Your task to perform on an android device: Is it going to rain this weekend? Image 0: 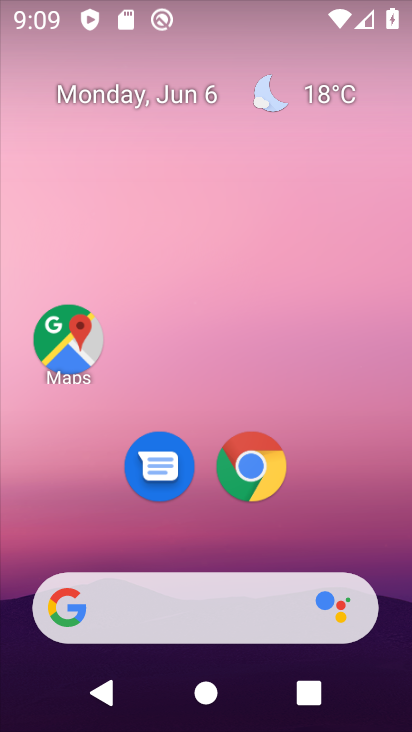
Step 0: click (197, 591)
Your task to perform on an android device: Is it going to rain this weekend? Image 1: 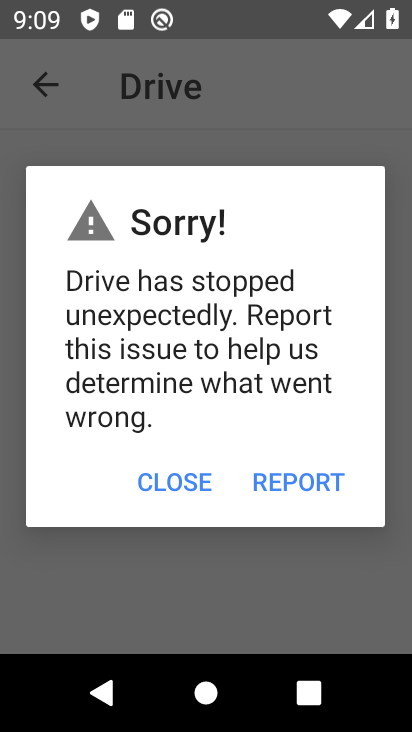
Step 1: click (197, 591)
Your task to perform on an android device: Is it going to rain this weekend? Image 2: 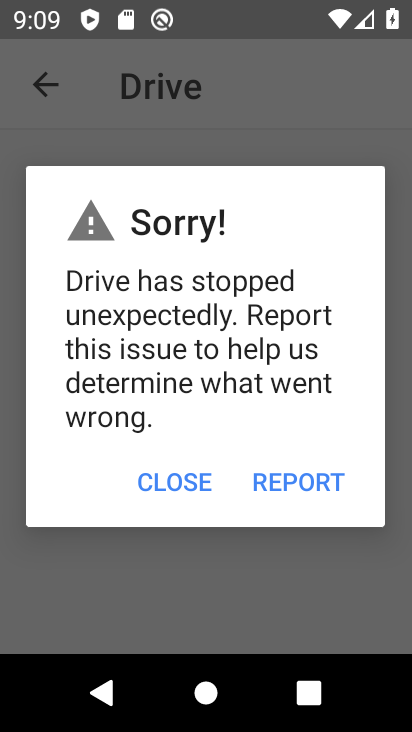
Step 2: click (188, 471)
Your task to perform on an android device: Is it going to rain this weekend? Image 3: 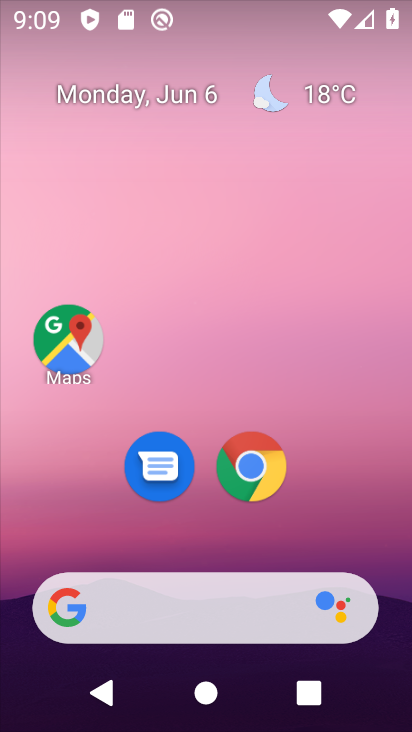
Step 3: click (62, 602)
Your task to perform on an android device: Is it going to rain this weekend? Image 4: 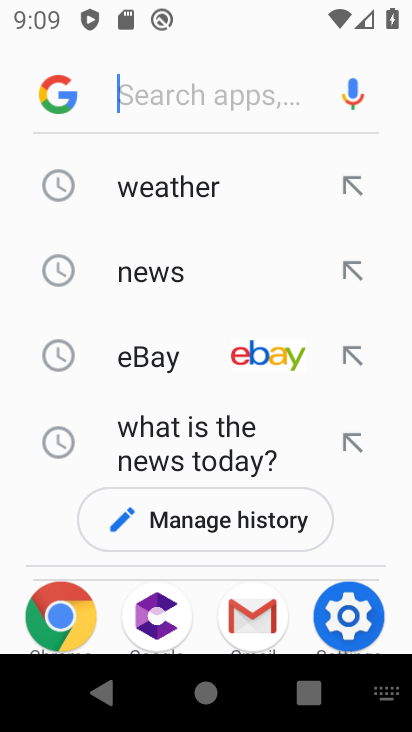
Step 4: click (59, 83)
Your task to perform on an android device: Is it going to rain this weekend? Image 5: 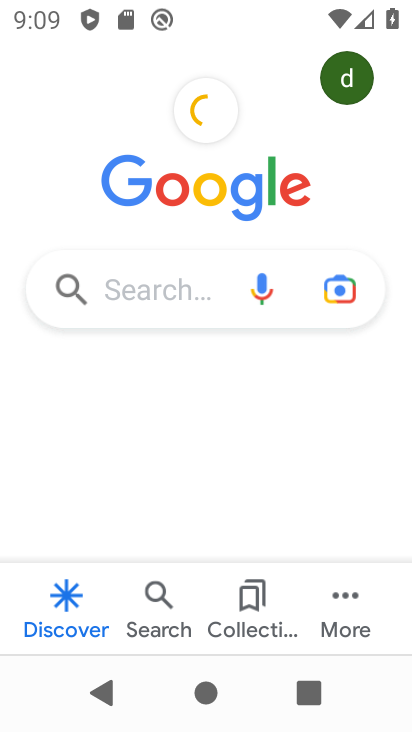
Step 5: click (370, 606)
Your task to perform on an android device: Is it going to rain this weekend? Image 6: 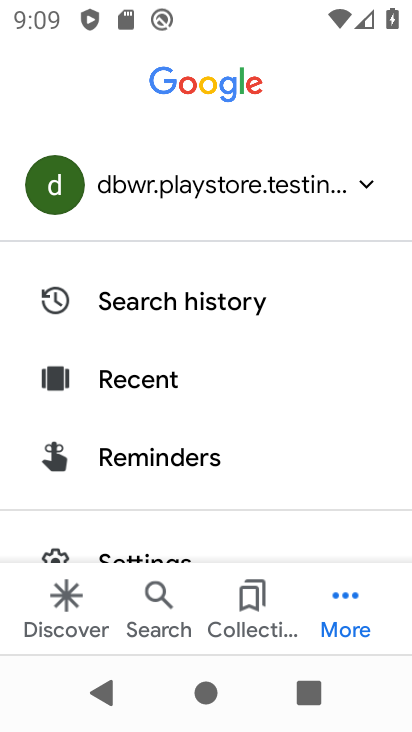
Step 6: drag from (181, 511) to (163, 374)
Your task to perform on an android device: Is it going to rain this weekend? Image 7: 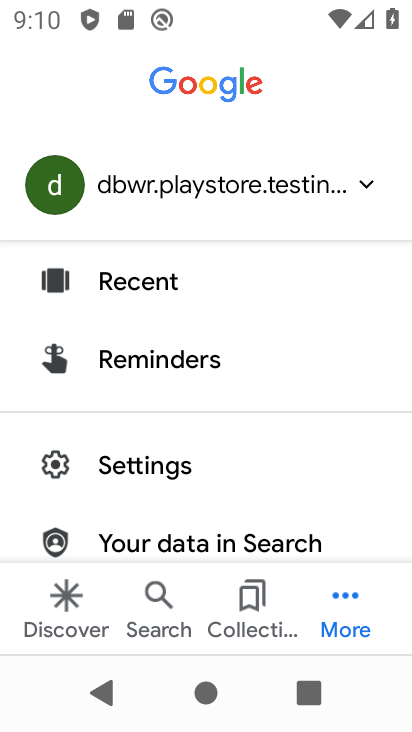
Step 7: press back button
Your task to perform on an android device: Is it going to rain this weekend? Image 8: 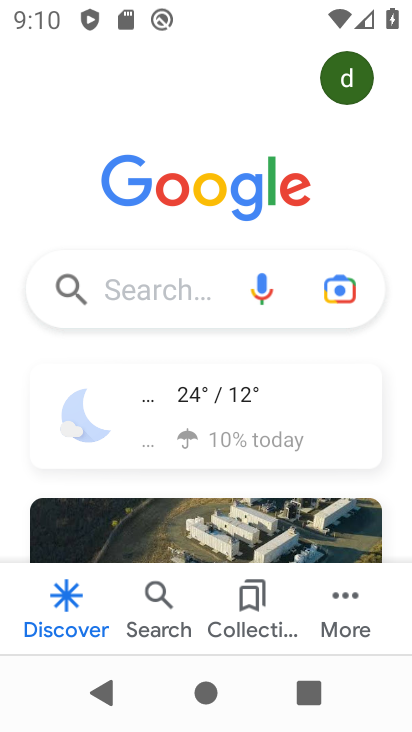
Step 8: click (133, 293)
Your task to perform on an android device: Is it going to rain this weekend? Image 9: 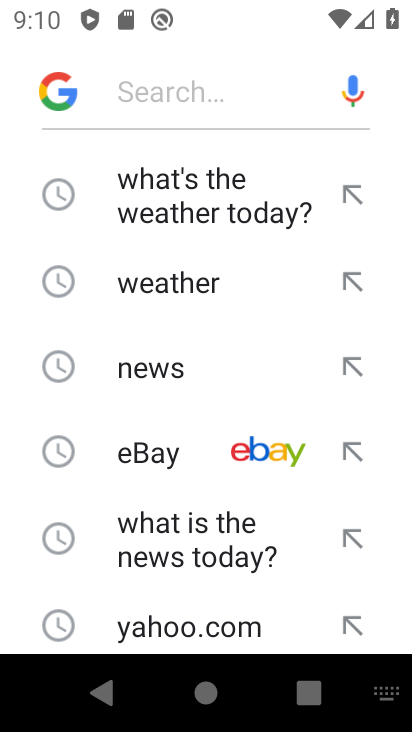
Step 9: click (179, 293)
Your task to perform on an android device: Is it going to rain this weekend? Image 10: 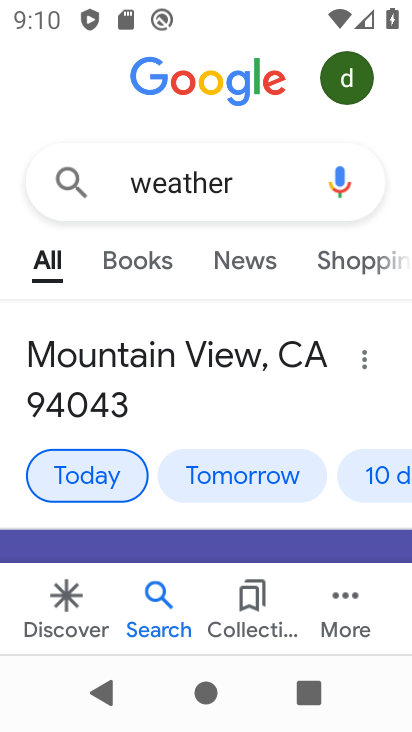
Step 10: drag from (273, 521) to (300, 199)
Your task to perform on an android device: Is it going to rain this weekend? Image 11: 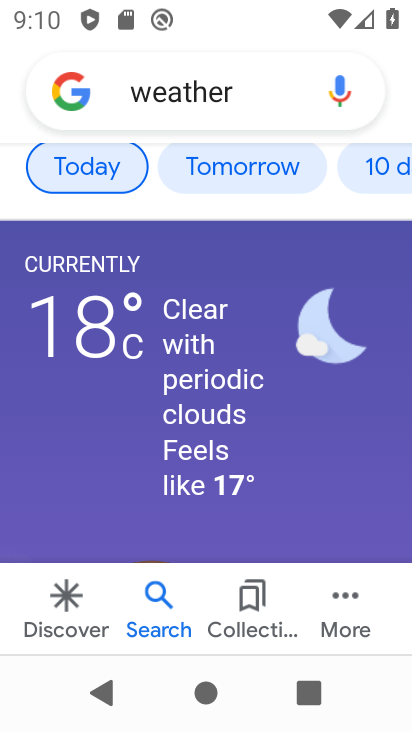
Step 11: drag from (272, 480) to (228, 171)
Your task to perform on an android device: Is it going to rain this weekend? Image 12: 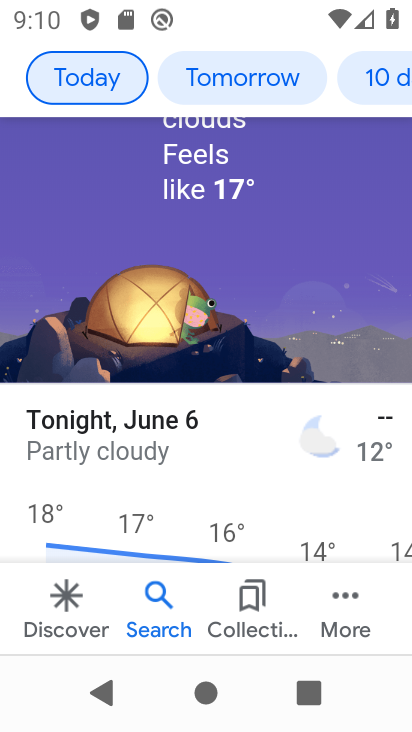
Step 12: drag from (268, 231) to (219, 542)
Your task to perform on an android device: Is it going to rain this weekend? Image 13: 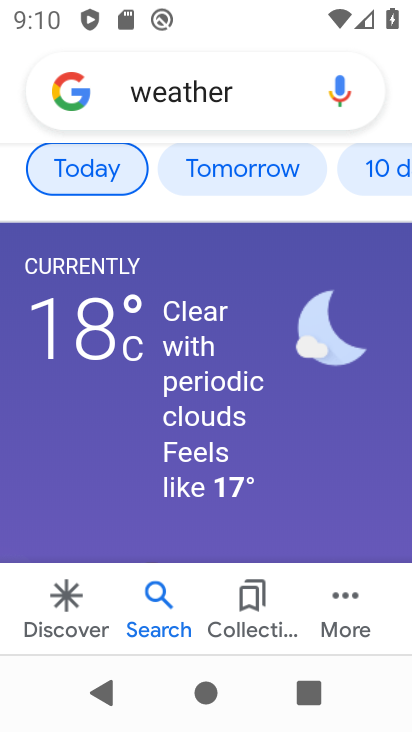
Step 13: click (379, 166)
Your task to perform on an android device: Is it going to rain this weekend? Image 14: 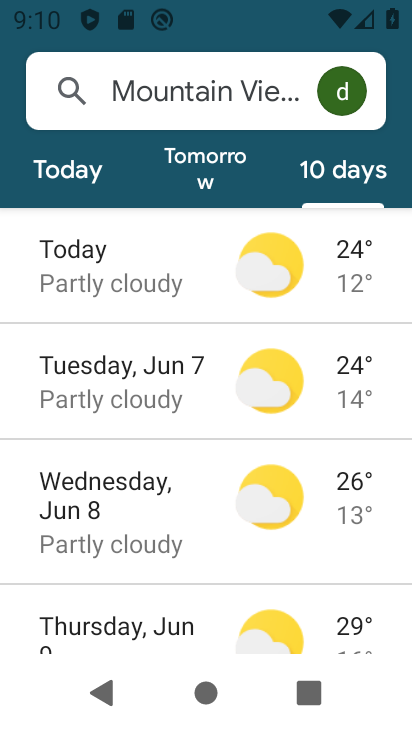
Step 14: task complete